Your task to perform on an android device: change the clock display to analog Image 0: 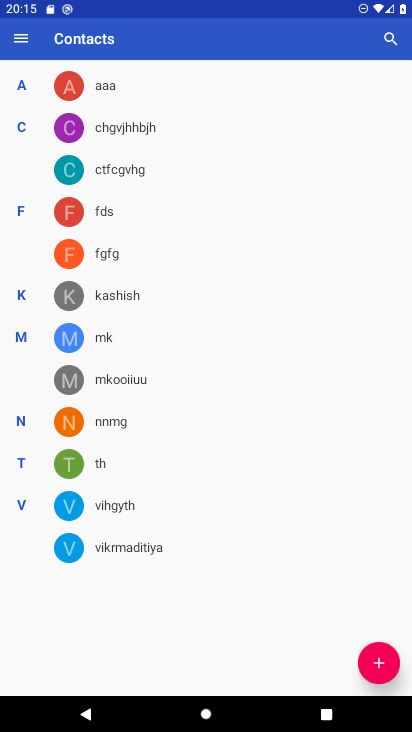
Step 0: press home button
Your task to perform on an android device: change the clock display to analog Image 1: 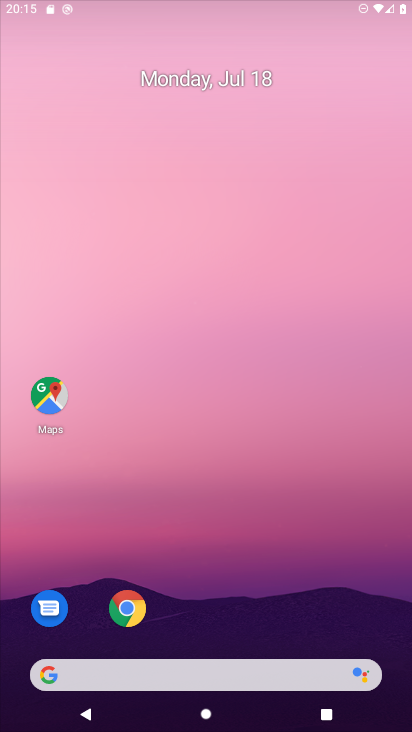
Step 1: drag from (190, 636) to (202, 48)
Your task to perform on an android device: change the clock display to analog Image 2: 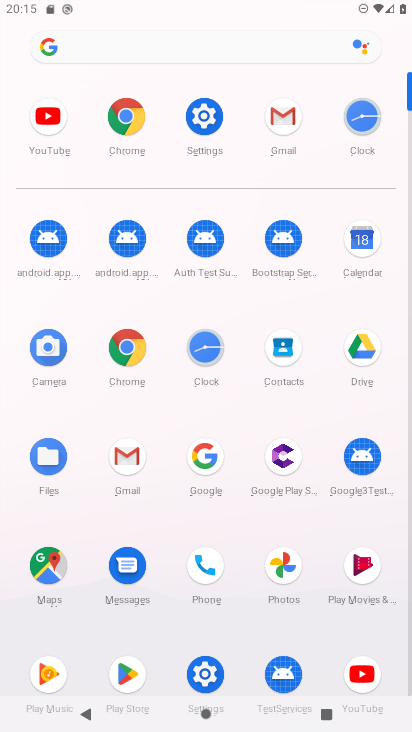
Step 2: click (203, 353)
Your task to perform on an android device: change the clock display to analog Image 3: 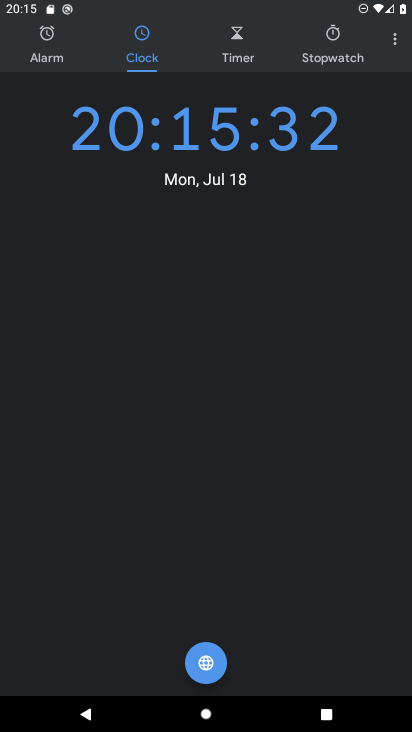
Step 3: click (391, 38)
Your task to perform on an android device: change the clock display to analog Image 4: 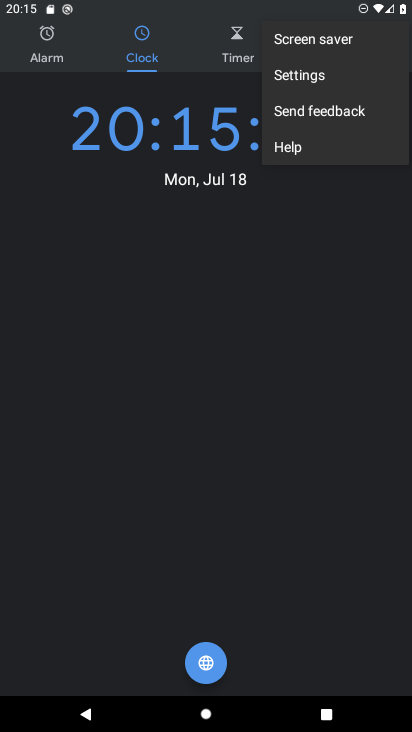
Step 4: click (315, 68)
Your task to perform on an android device: change the clock display to analog Image 5: 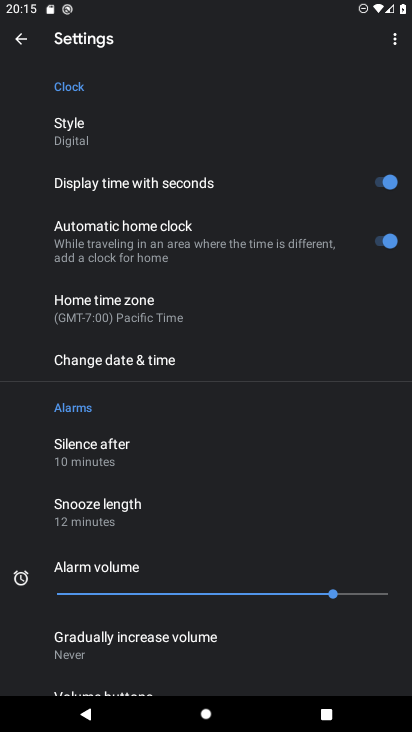
Step 5: click (94, 131)
Your task to perform on an android device: change the clock display to analog Image 6: 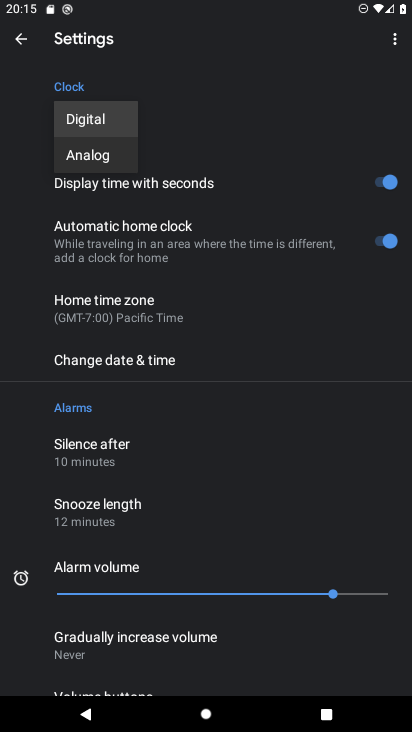
Step 6: click (95, 152)
Your task to perform on an android device: change the clock display to analog Image 7: 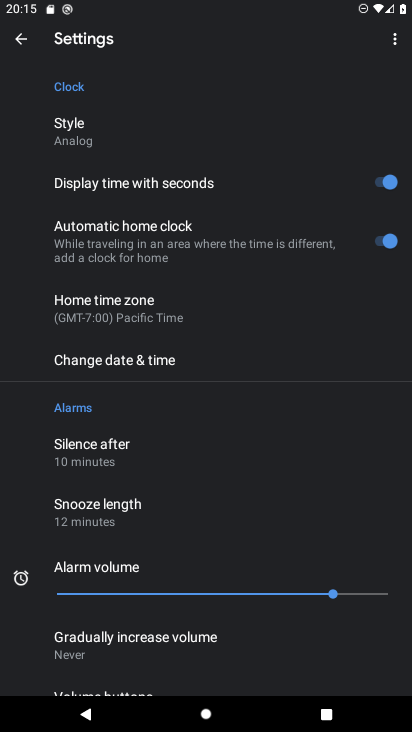
Step 7: task complete